Your task to perform on an android device: Open calendar and show me the fourth week of next month Image 0: 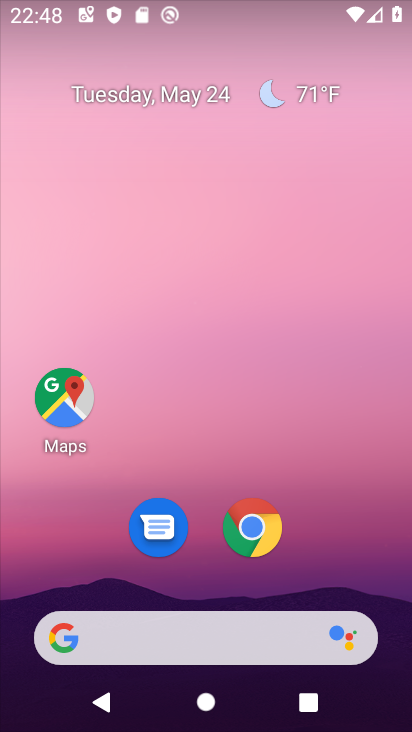
Step 0: drag from (214, 347) to (210, 13)
Your task to perform on an android device: Open calendar and show me the fourth week of next month Image 1: 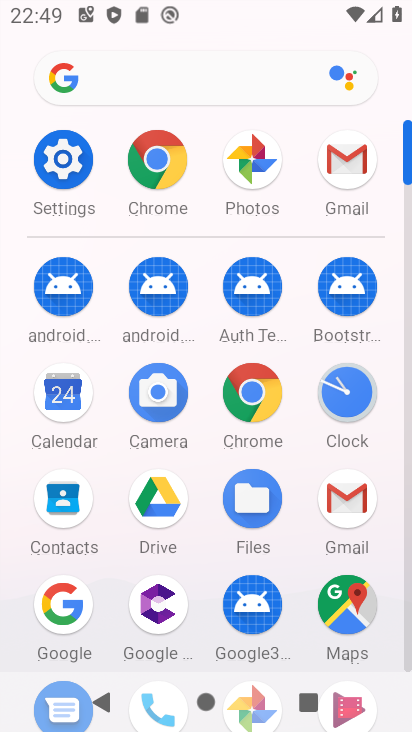
Step 1: click (55, 396)
Your task to perform on an android device: Open calendar and show me the fourth week of next month Image 2: 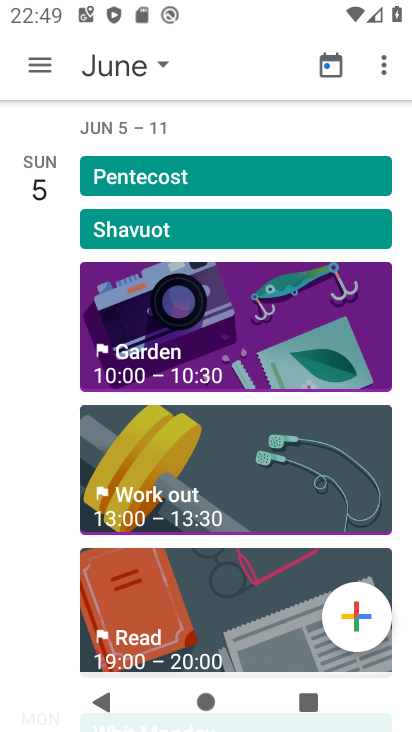
Step 2: click (116, 64)
Your task to perform on an android device: Open calendar and show me the fourth week of next month Image 3: 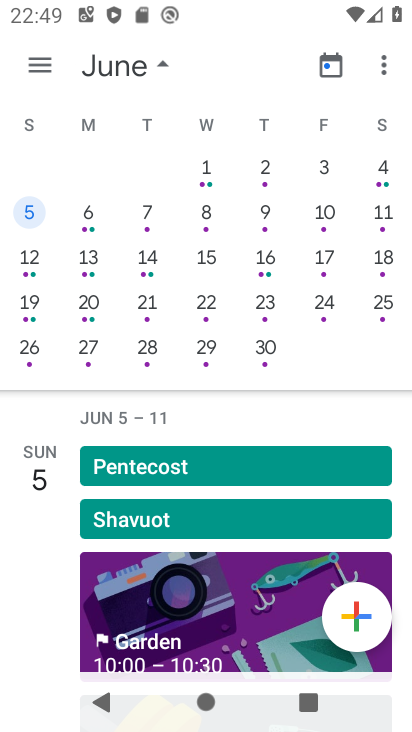
Step 3: click (43, 309)
Your task to perform on an android device: Open calendar and show me the fourth week of next month Image 4: 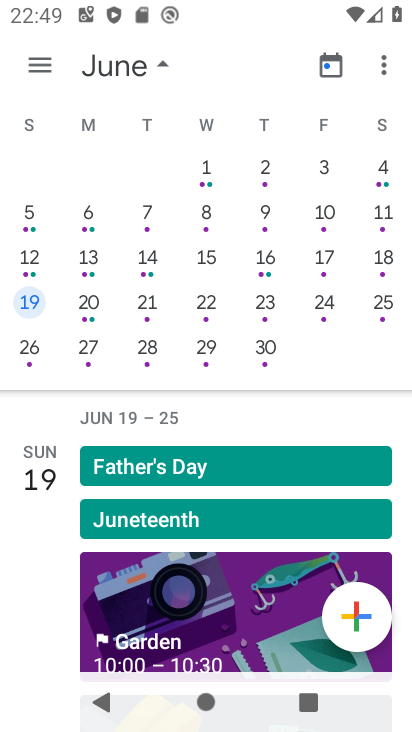
Step 4: task complete